Your task to perform on an android device: What's the news in India? Image 0: 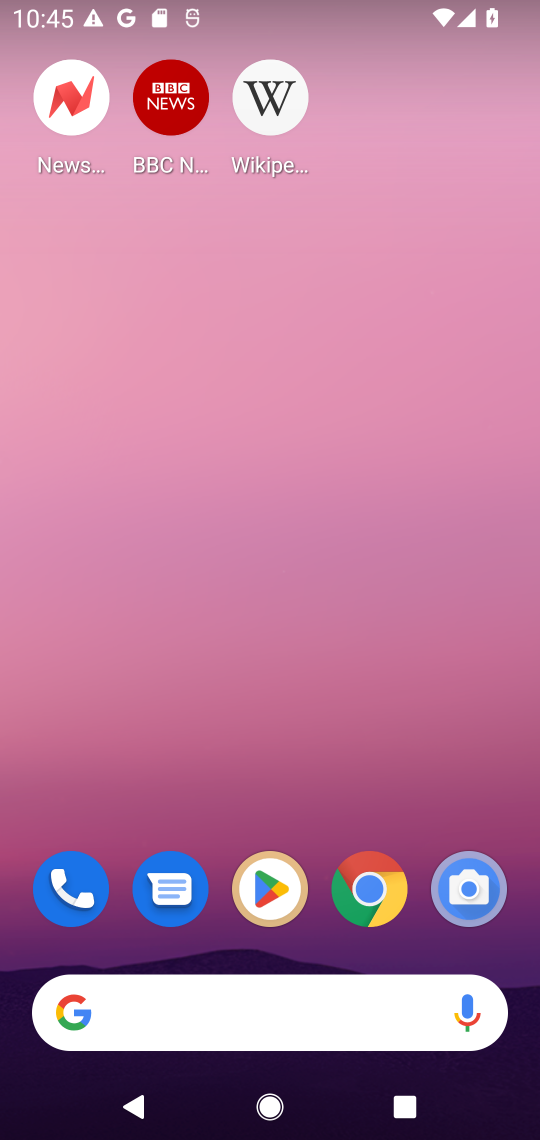
Step 0: click (310, 1018)
Your task to perform on an android device: What's the news in India? Image 1: 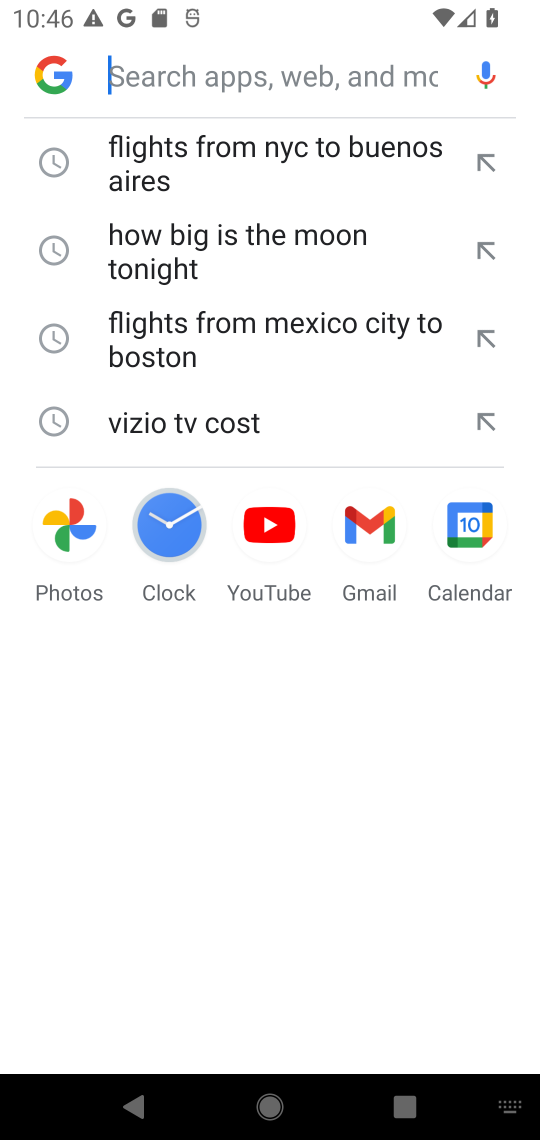
Step 1: type "news in india"
Your task to perform on an android device: What's the news in India? Image 2: 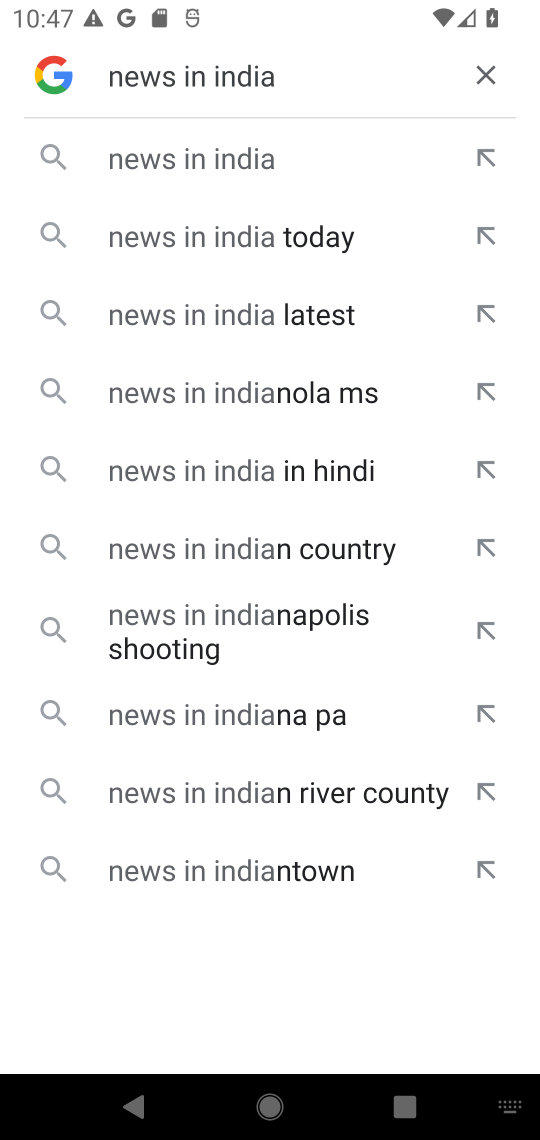
Step 2: click (265, 162)
Your task to perform on an android device: What's the news in India? Image 3: 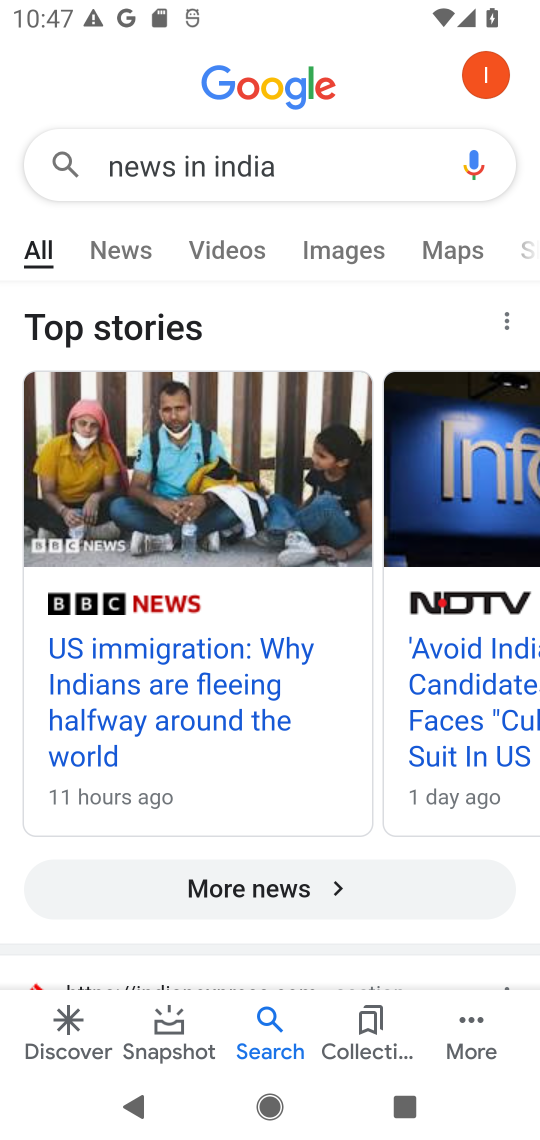
Step 3: drag from (141, 864) to (229, 565)
Your task to perform on an android device: What's the news in India? Image 4: 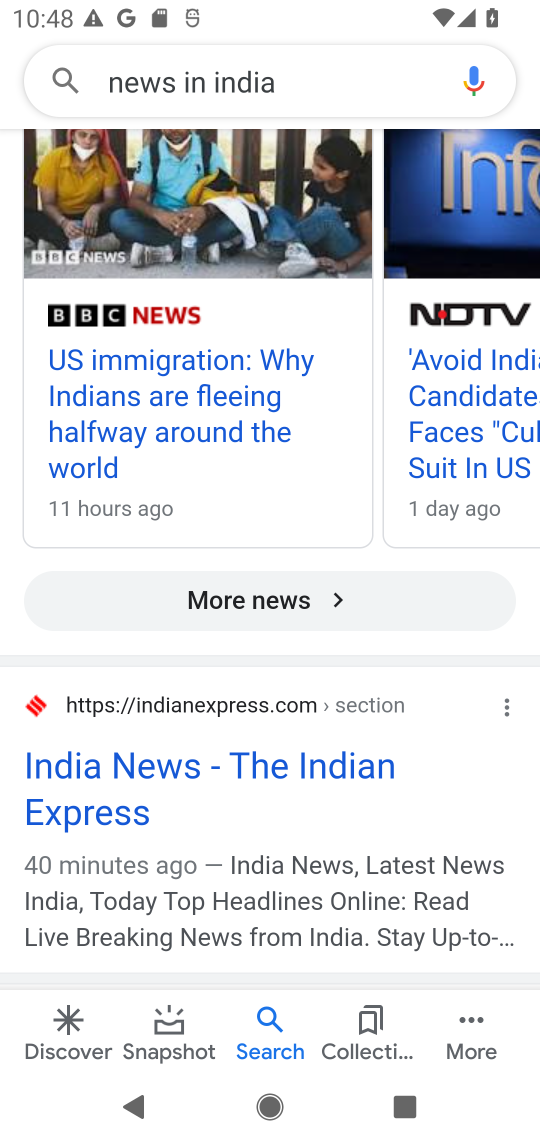
Step 4: drag from (19, 733) to (19, 415)
Your task to perform on an android device: What's the news in India? Image 5: 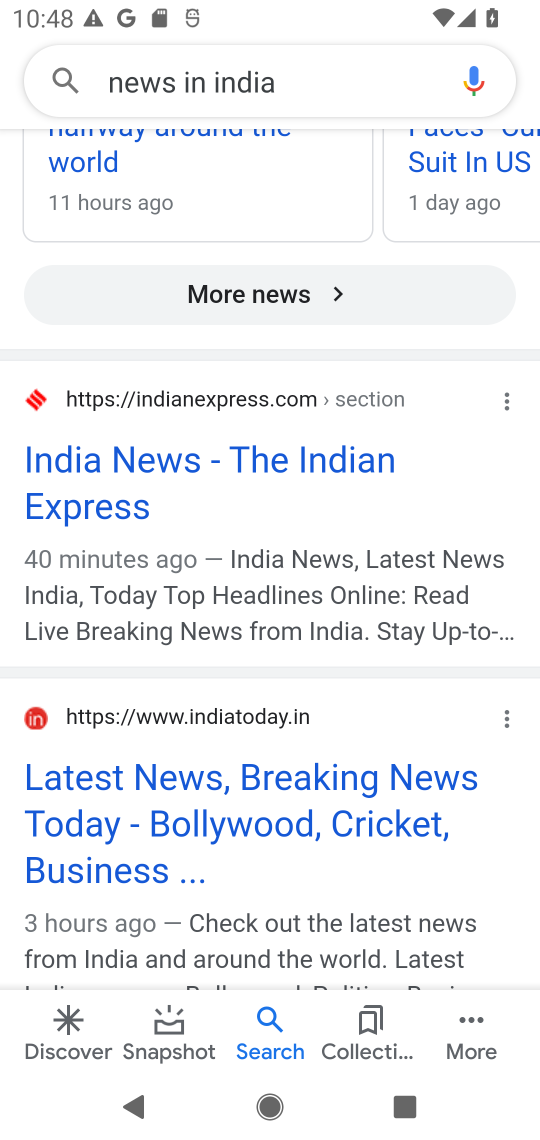
Step 5: drag from (19, 672) to (19, 357)
Your task to perform on an android device: What's the news in India? Image 6: 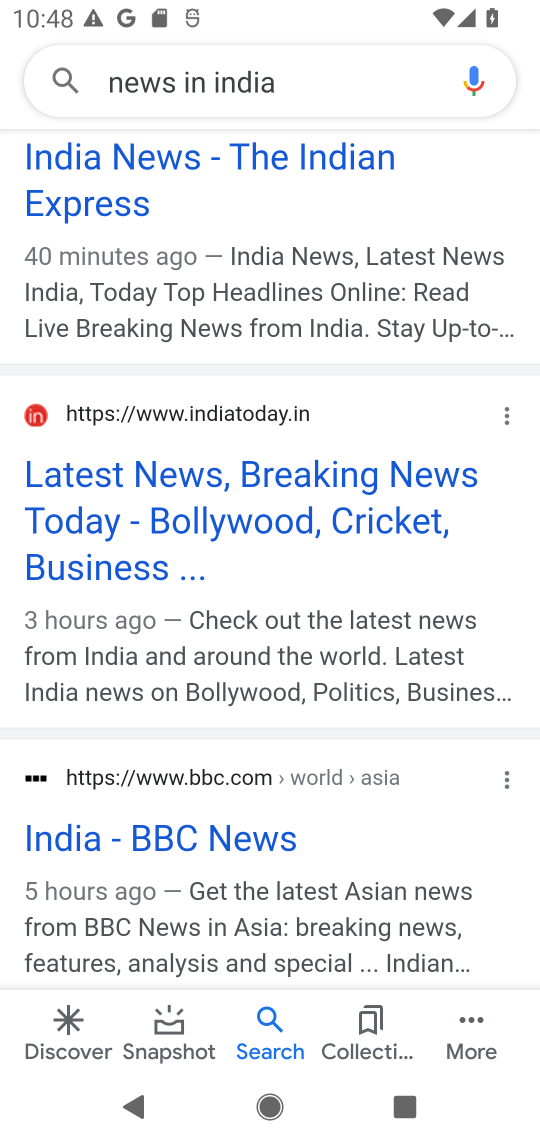
Step 6: drag from (43, 500) to (61, 398)
Your task to perform on an android device: What's the news in India? Image 7: 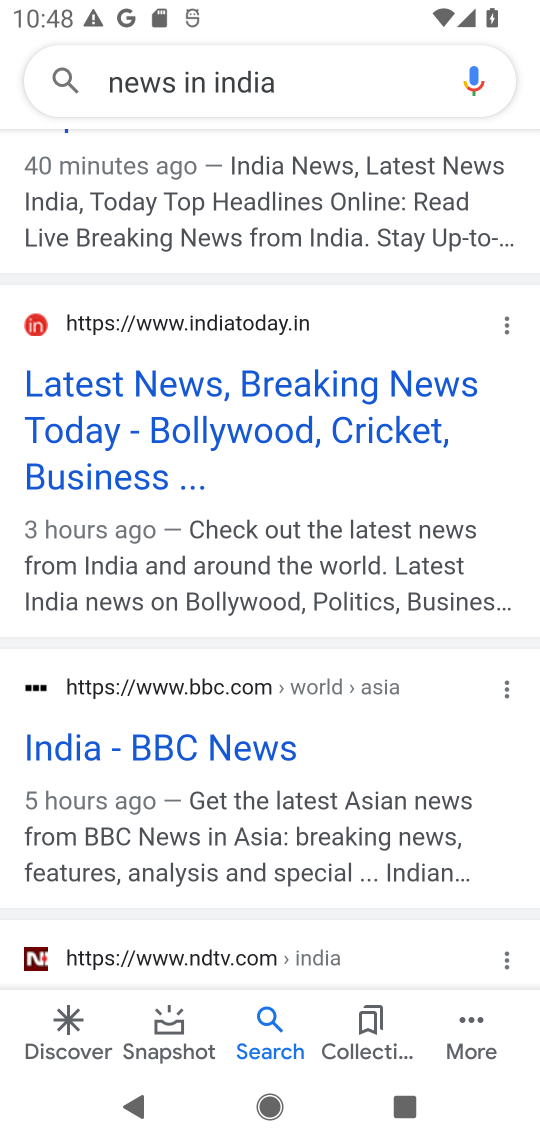
Step 7: click (147, 747)
Your task to perform on an android device: What's the news in India? Image 8: 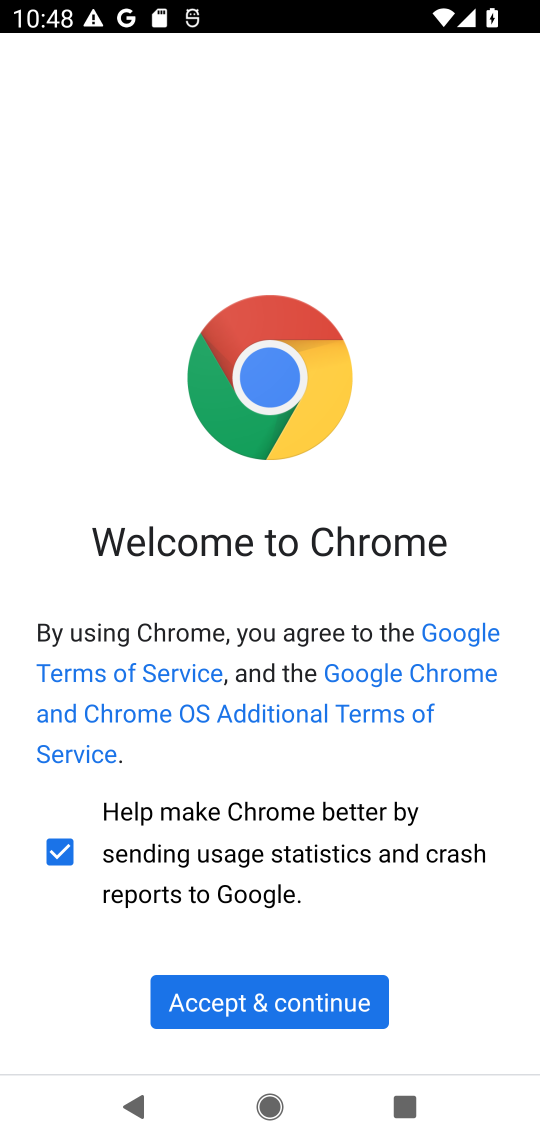
Step 8: click (285, 1014)
Your task to perform on an android device: What's the news in India? Image 9: 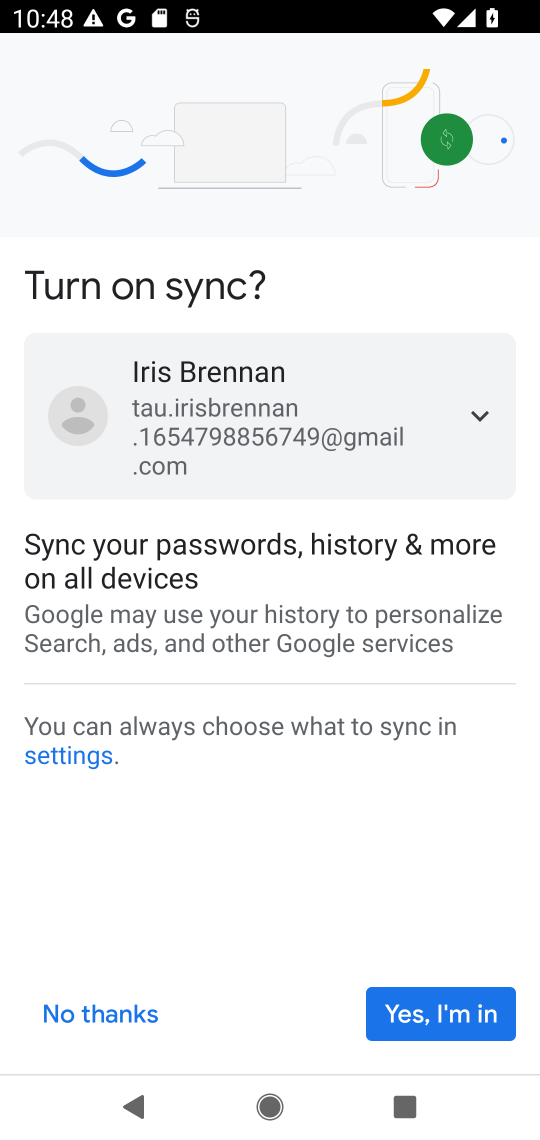
Step 9: click (285, 1014)
Your task to perform on an android device: What's the news in India? Image 10: 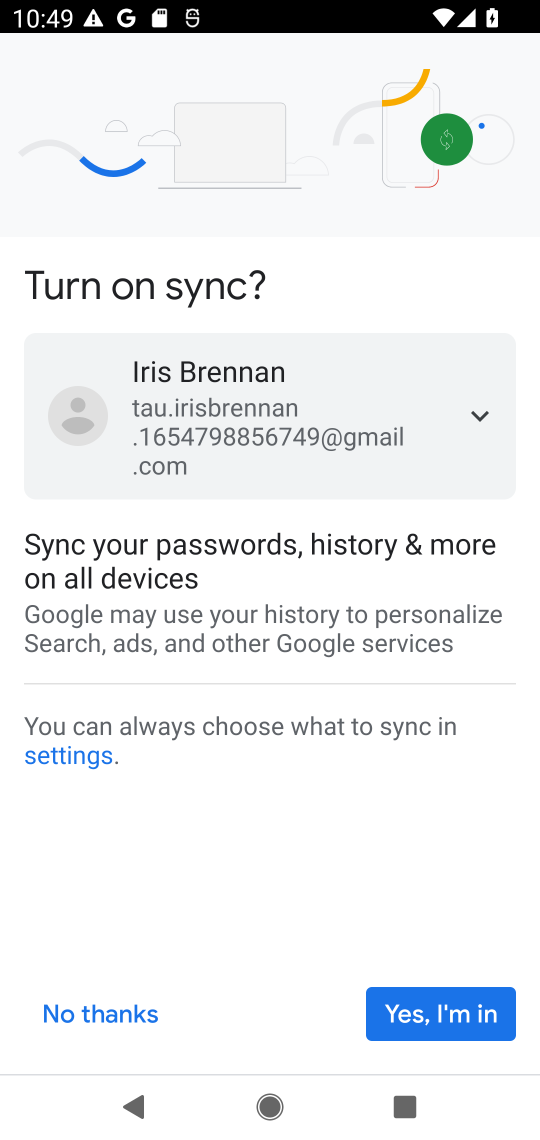
Step 10: click (404, 1016)
Your task to perform on an android device: What's the news in India? Image 11: 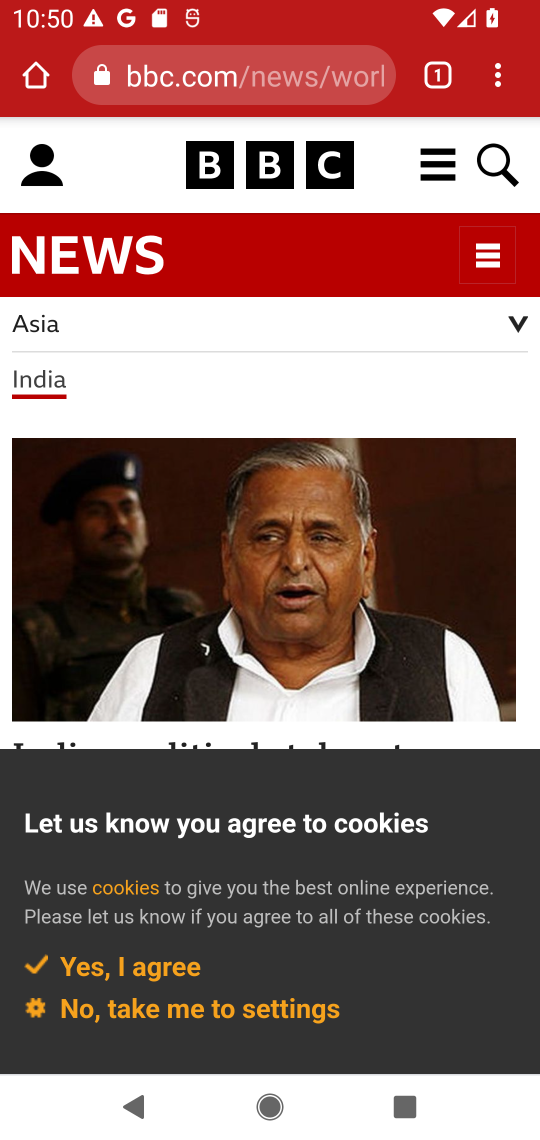
Step 11: drag from (267, 731) to (341, 595)
Your task to perform on an android device: What's the news in India? Image 12: 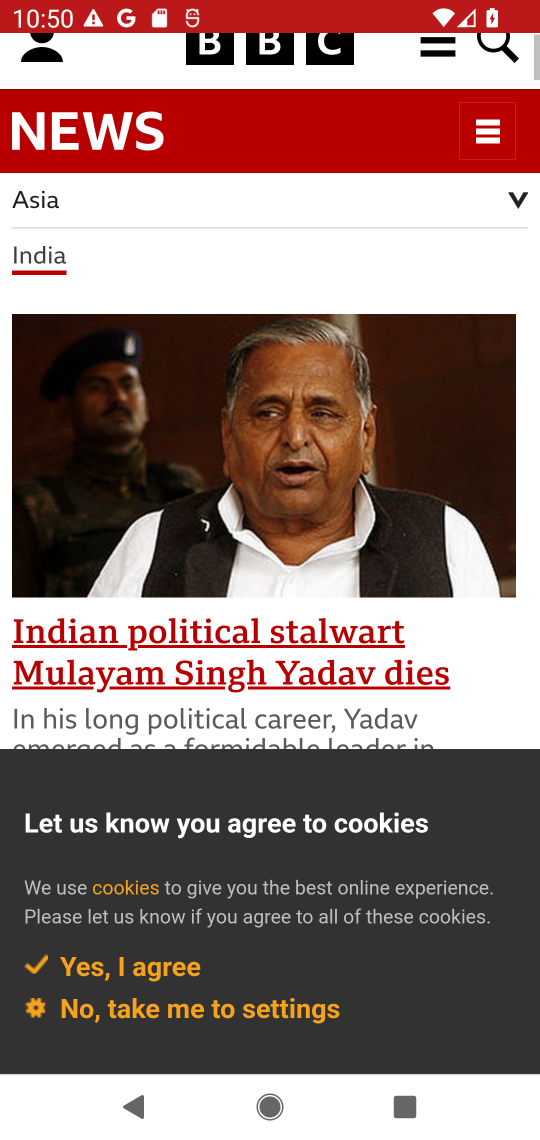
Step 12: click (204, 1008)
Your task to perform on an android device: What's the news in India? Image 13: 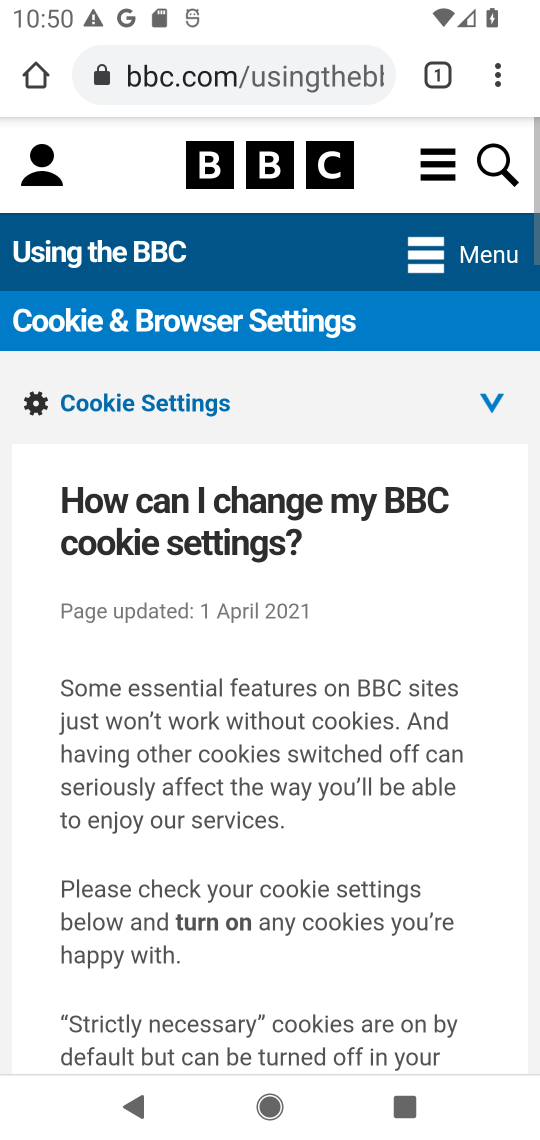
Step 13: click (204, 1010)
Your task to perform on an android device: What's the news in India? Image 14: 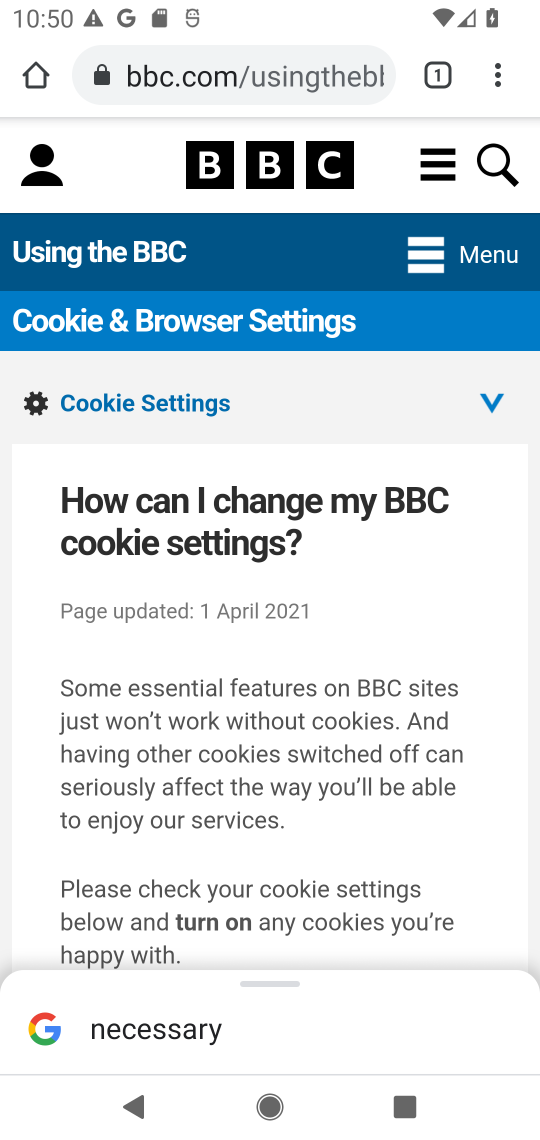
Step 14: drag from (221, 974) to (312, 351)
Your task to perform on an android device: What's the news in India? Image 15: 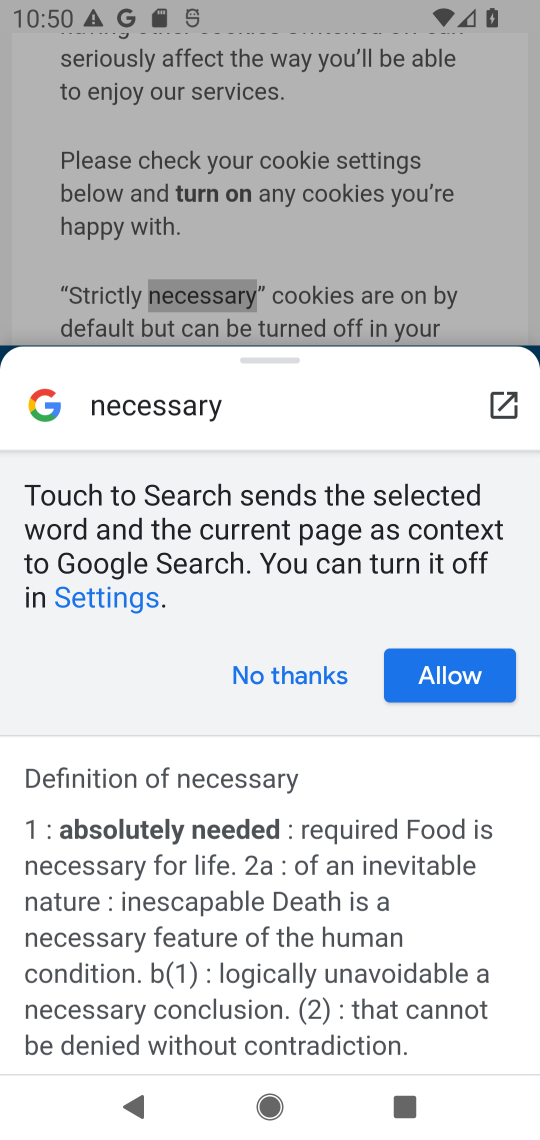
Step 15: click (296, 664)
Your task to perform on an android device: What's the news in India? Image 16: 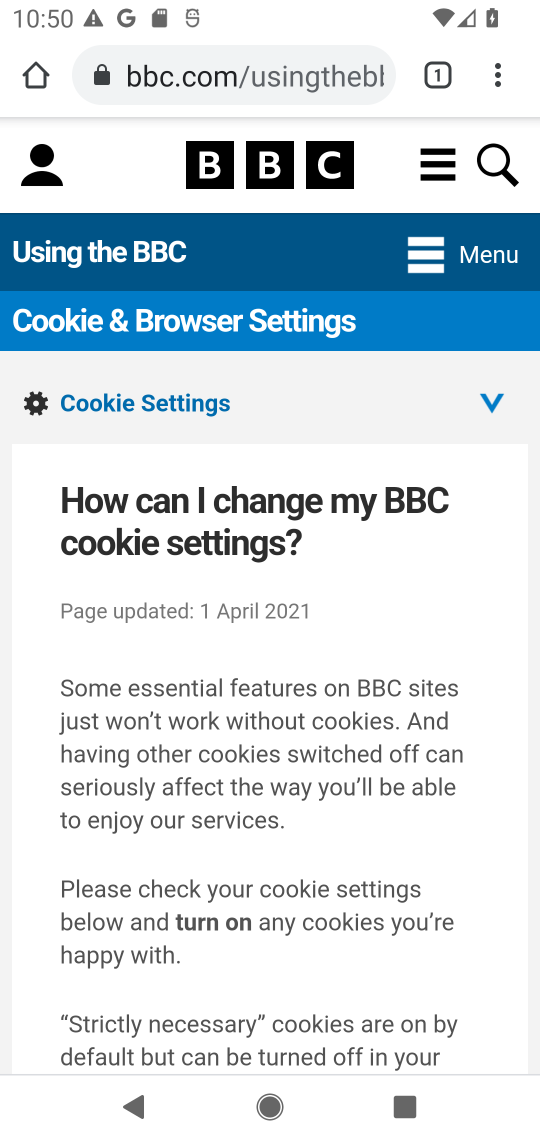
Step 16: drag from (132, 819) to (300, 265)
Your task to perform on an android device: What's the news in India? Image 17: 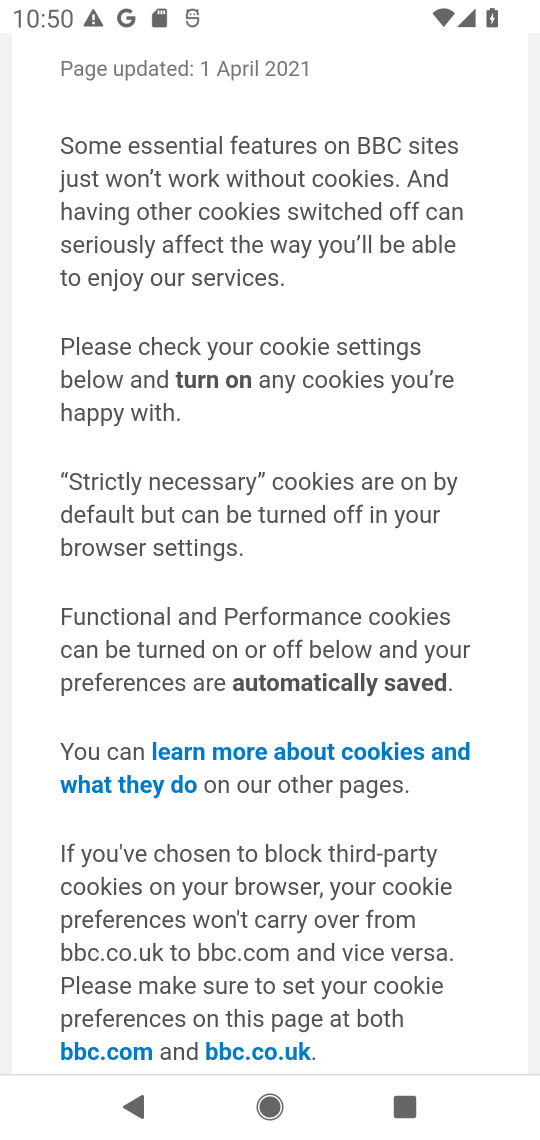
Step 17: drag from (174, 694) to (244, 265)
Your task to perform on an android device: What's the news in India? Image 18: 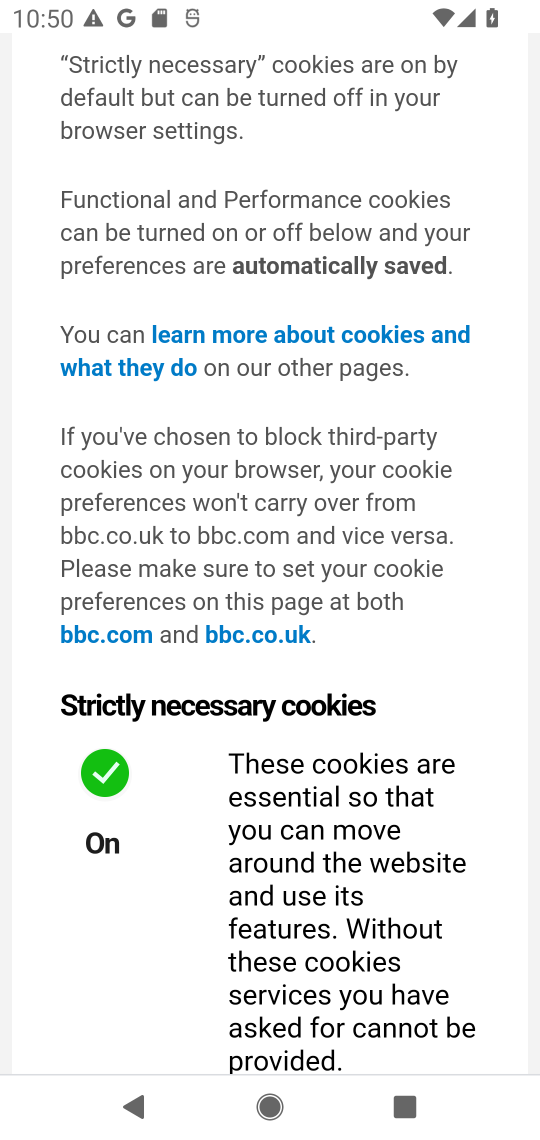
Step 18: drag from (189, 563) to (252, 278)
Your task to perform on an android device: What's the news in India? Image 19: 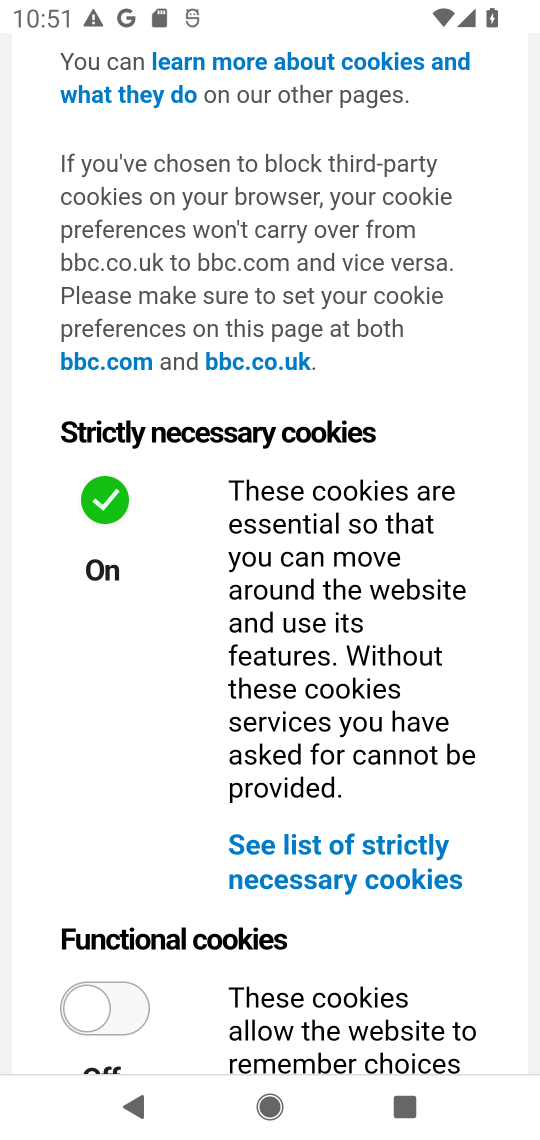
Step 19: drag from (173, 801) to (190, 648)
Your task to perform on an android device: What's the news in India? Image 20: 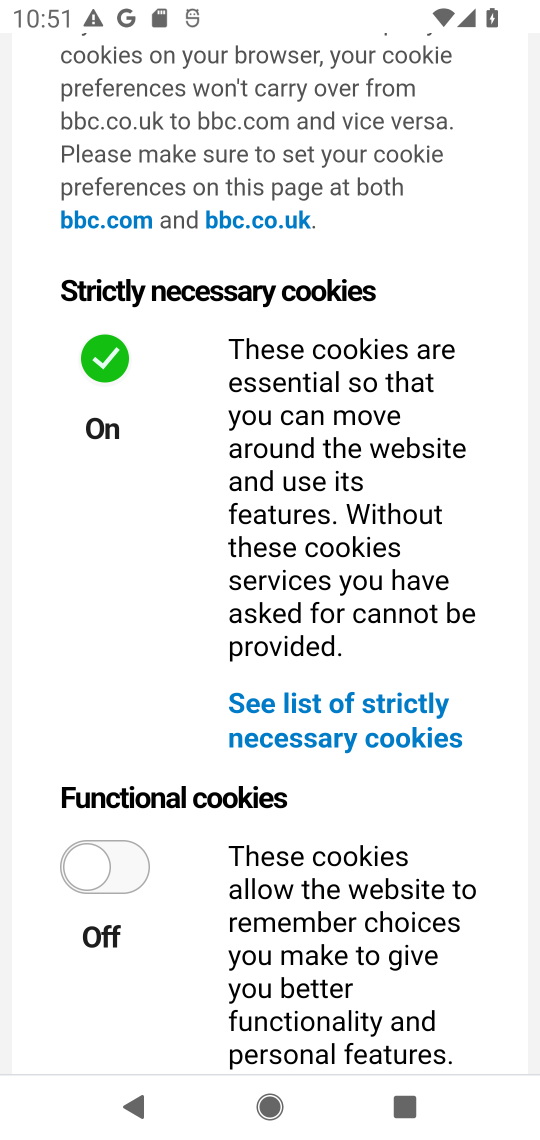
Step 20: click (190, 648)
Your task to perform on an android device: What's the news in India? Image 21: 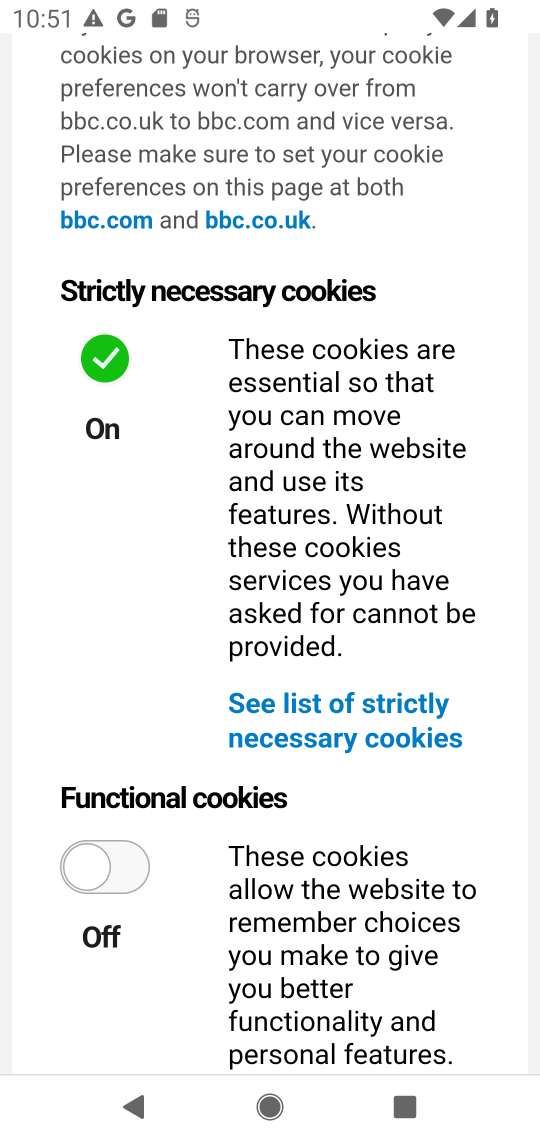
Step 21: task complete